Your task to perform on an android device: check data usage Image 0: 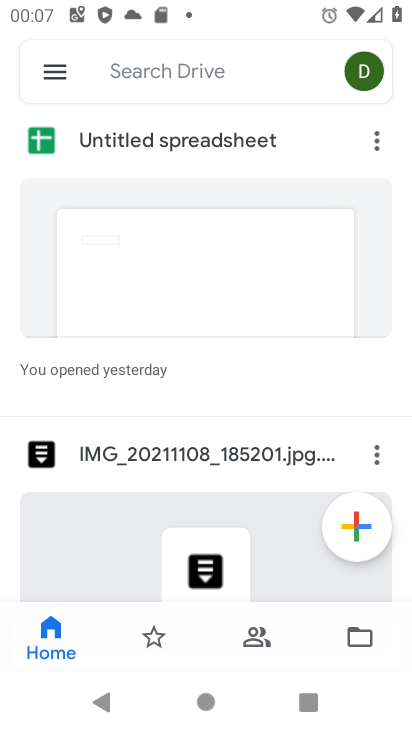
Step 0: press home button
Your task to perform on an android device: check data usage Image 1: 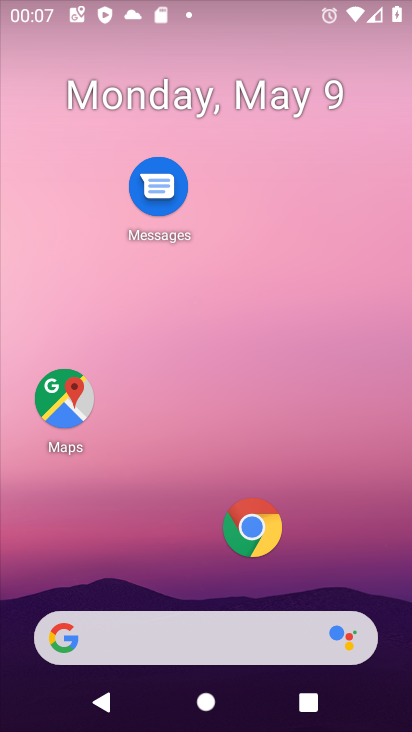
Step 1: drag from (154, 509) to (190, 63)
Your task to perform on an android device: check data usage Image 2: 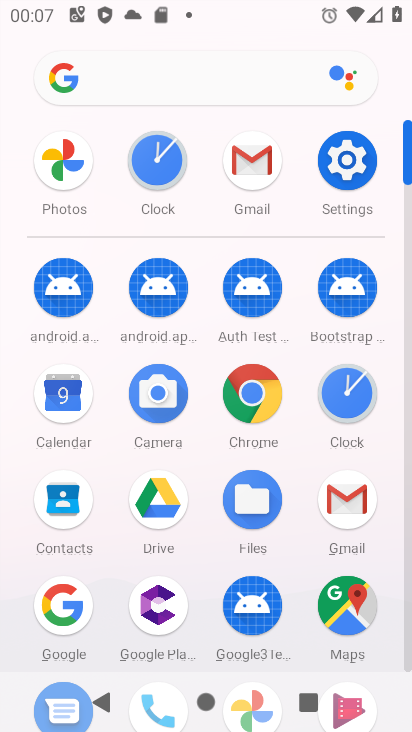
Step 2: click (349, 167)
Your task to perform on an android device: check data usage Image 3: 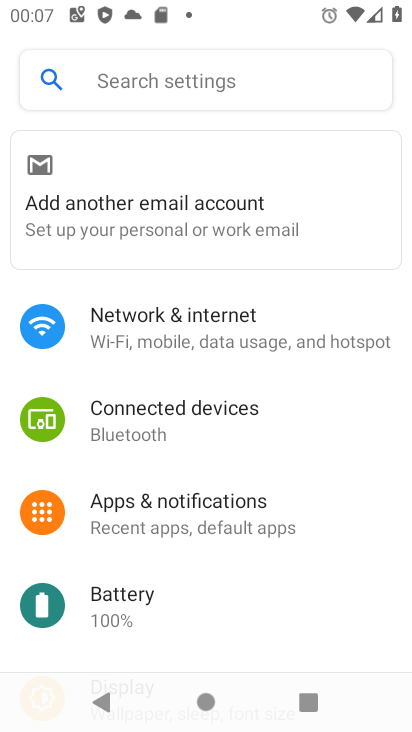
Step 3: click (166, 327)
Your task to perform on an android device: check data usage Image 4: 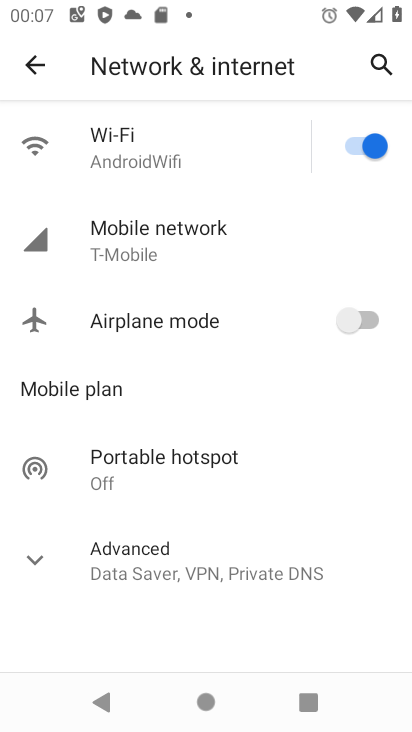
Step 4: click (165, 234)
Your task to perform on an android device: check data usage Image 5: 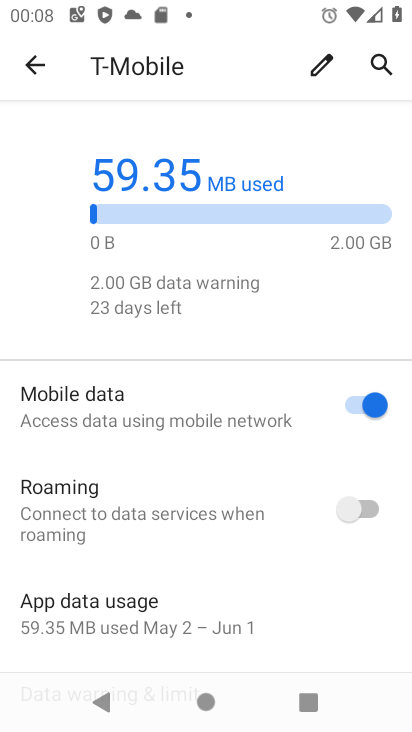
Step 5: task complete